Your task to perform on an android device: Open the web browser Image 0: 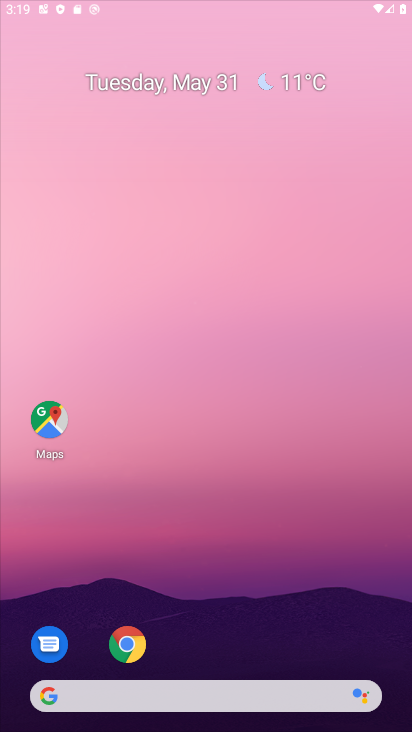
Step 0: drag from (319, 115) to (301, 189)
Your task to perform on an android device: Open the web browser Image 1: 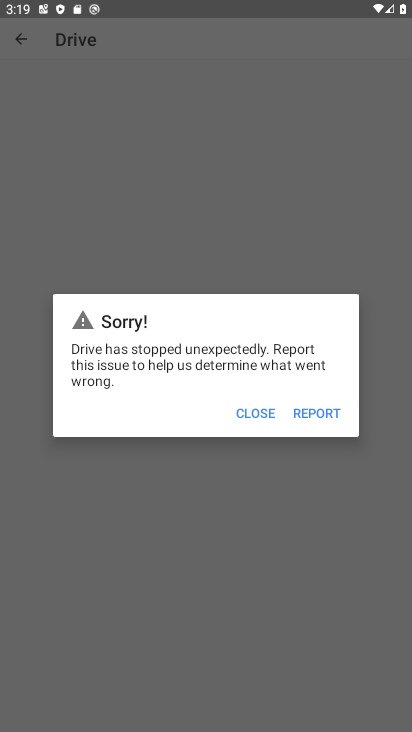
Step 1: press home button
Your task to perform on an android device: Open the web browser Image 2: 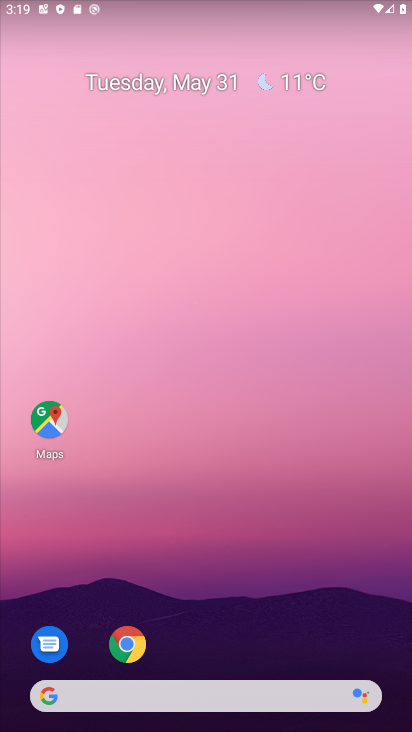
Step 2: click (117, 631)
Your task to perform on an android device: Open the web browser Image 3: 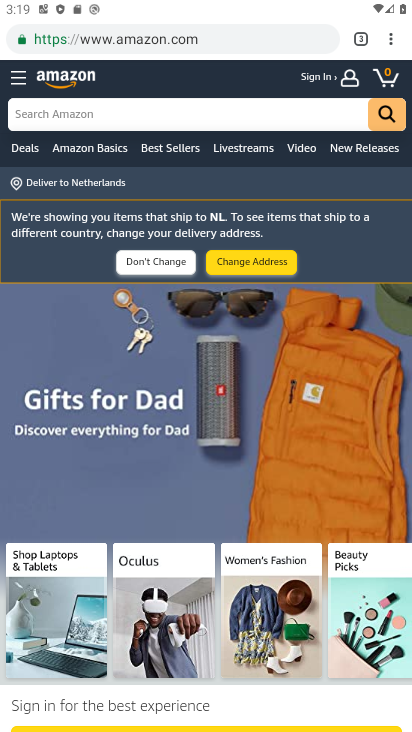
Step 3: task complete